Your task to perform on an android device: set an alarm Image 0: 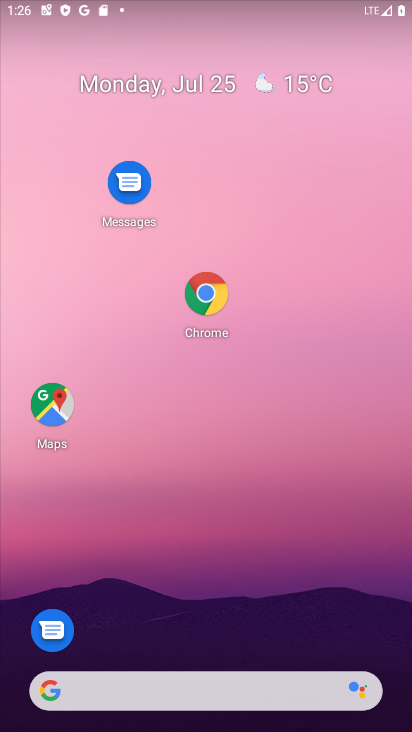
Step 0: press home button
Your task to perform on an android device: set an alarm Image 1: 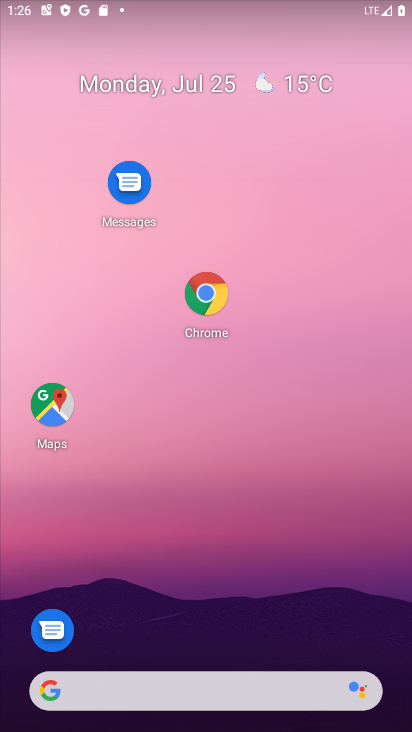
Step 1: press home button
Your task to perform on an android device: set an alarm Image 2: 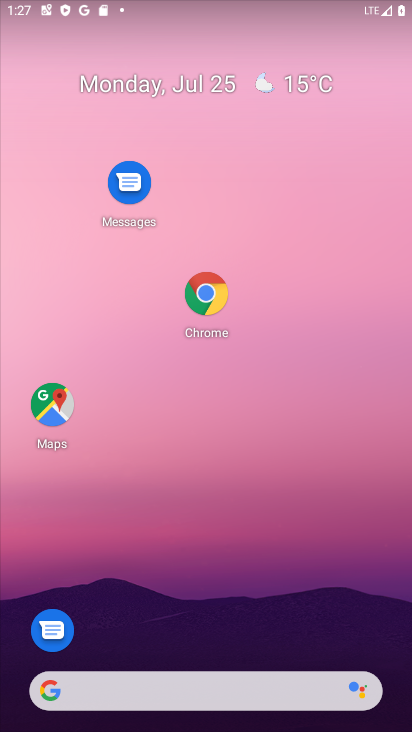
Step 2: drag from (310, 657) to (328, 317)
Your task to perform on an android device: set an alarm Image 3: 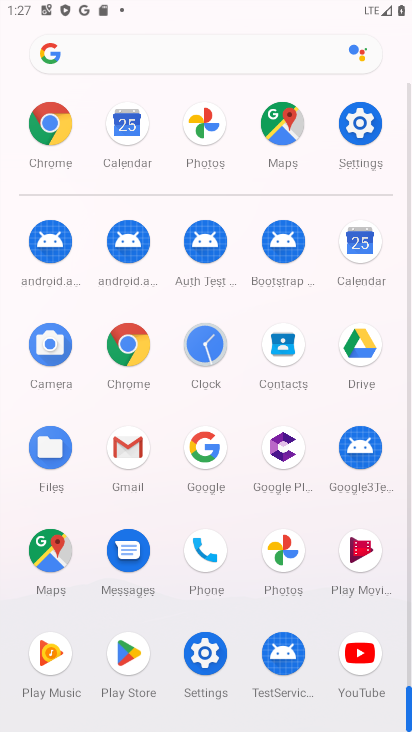
Step 3: click (180, 349)
Your task to perform on an android device: set an alarm Image 4: 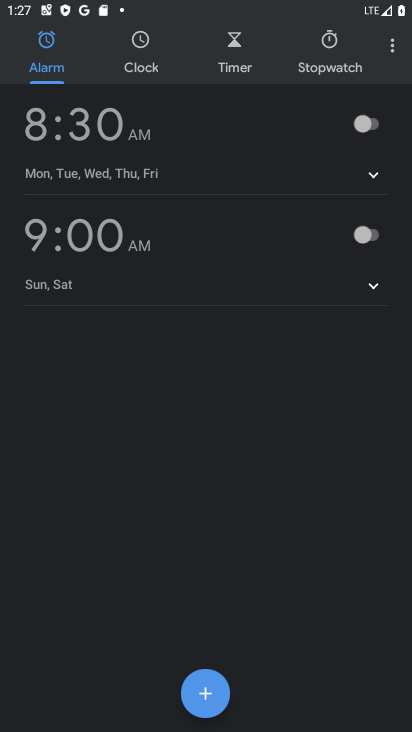
Step 4: click (201, 718)
Your task to perform on an android device: set an alarm Image 5: 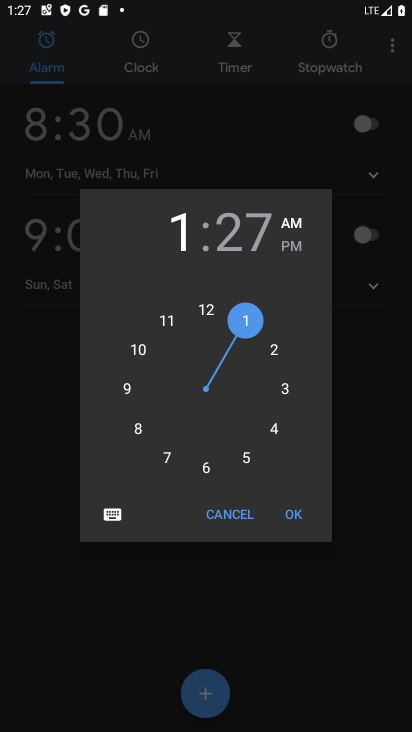
Step 5: click (282, 523)
Your task to perform on an android device: set an alarm Image 6: 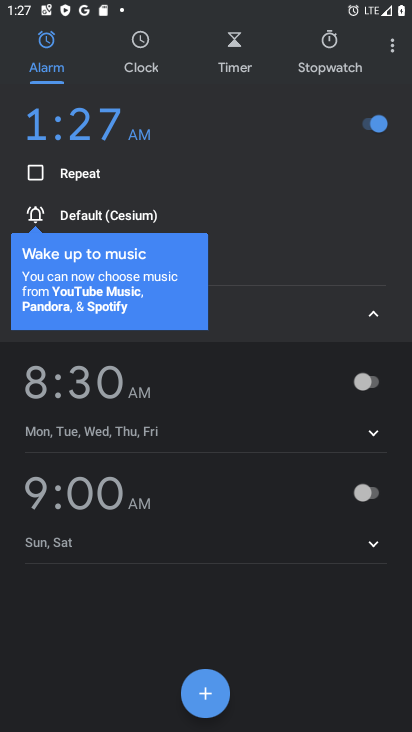
Step 6: task complete